Your task to perform on an android device: What's the weather today? Image 0: 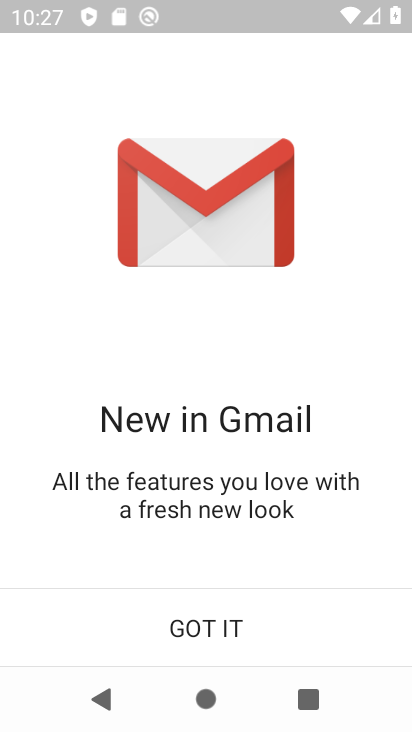
Step 0: press back button
Your task to perform on an android device: What's the weather today? Image 1: 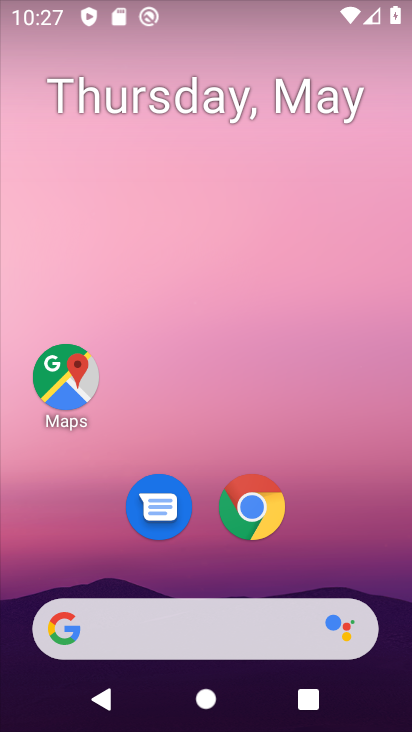
Step 1: drag from (323, 535) to (260, 40)
Your task to perform on an android device: What's the weather today? Image 2: 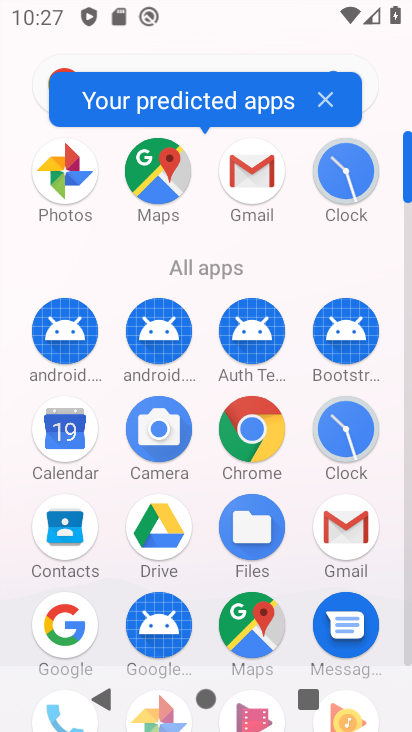
Step 2: drag from (1, 598) to (18, 322)
Your task to perform on an android device: What's the weather today? Image 3: 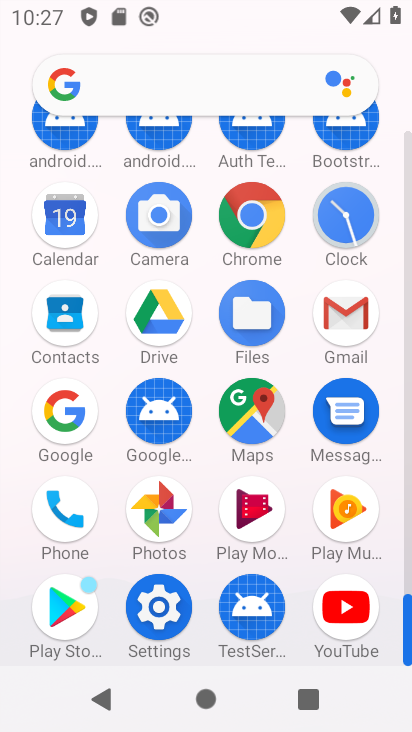
Step 3: drag from (7, 614) to (18, 370)
Your task to perform on an android device: What's the weather today? Image 4: 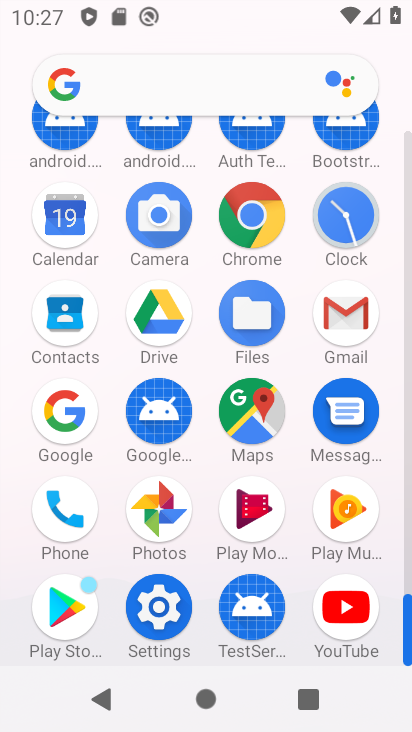
Step 4: click (249, 214)
Your task to perform on an android device: What's the weather today? Image 5: 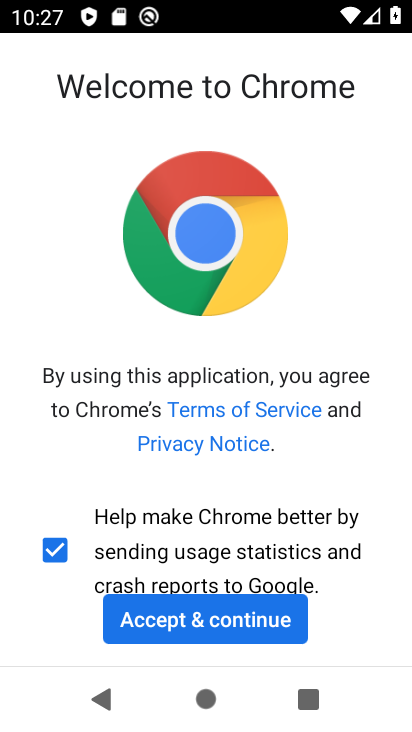
Step 5: click (173, 611)
Your task to perform on an android device: What's the weather today? Image 6: 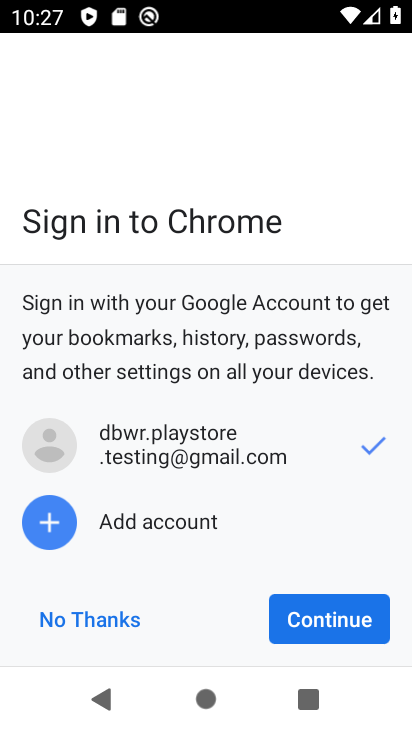
Step 6: click (283, 602)
Your task to perform on an android device: What's the weather today? Image 7: 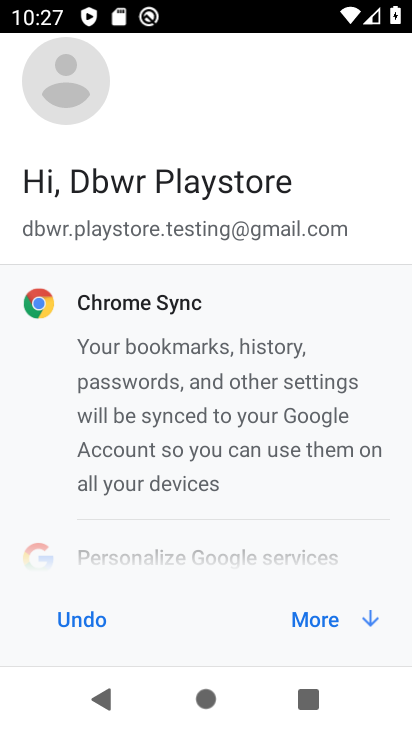
Step 7: click (315, 614)
Your task to perform on an android device: What's the weather today? Image 8: 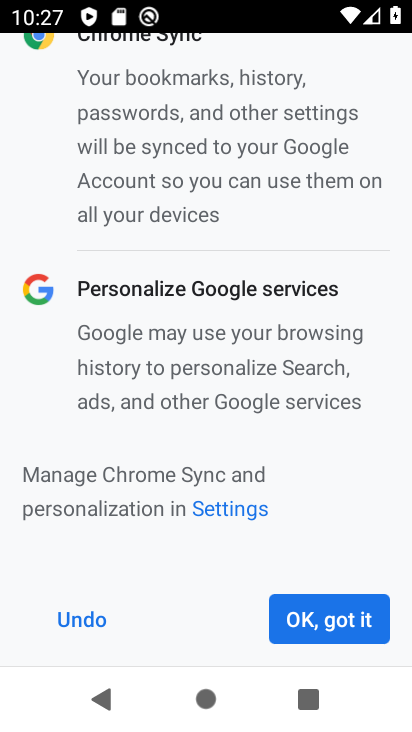
Step 8: click (315, 614)
Your task to perform on an android device: What's the weather today? Image 9: 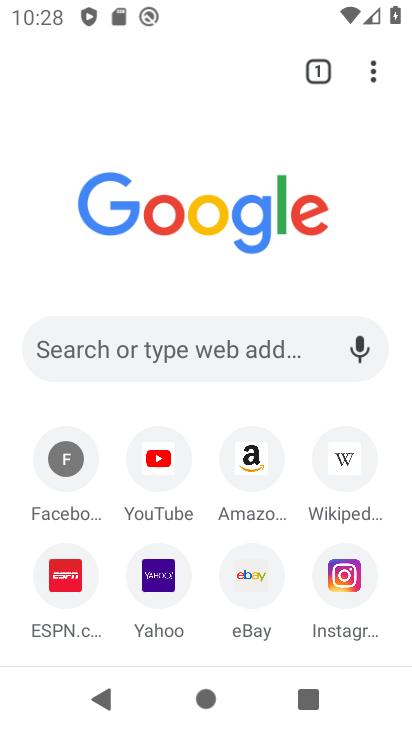
Step 9: click (168, 328)
Your task to perform on an android device: What's the weather today? Image 10: 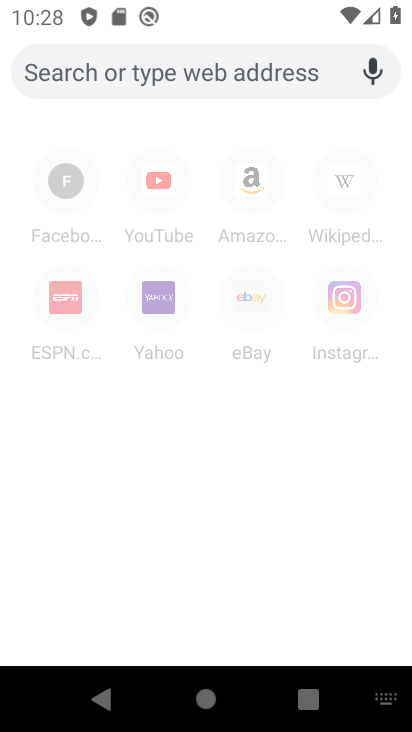
Step 10: type "What's the weather today?"
Your task to perform on an android device: What's the weather today? Image 11: 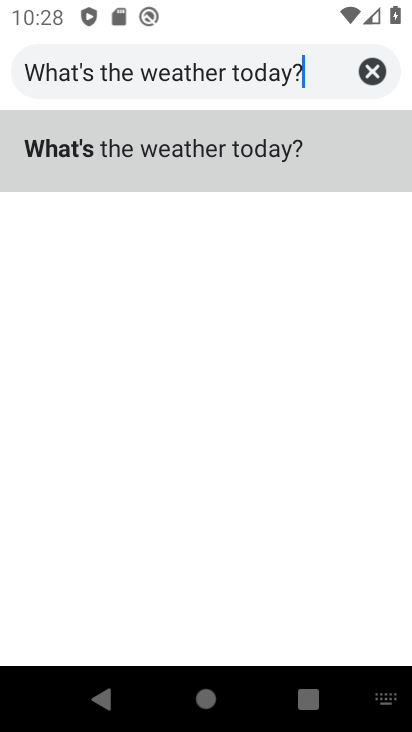
Step 11: type ""
Your task to perform on an android device: What's the weather today? Image 12: 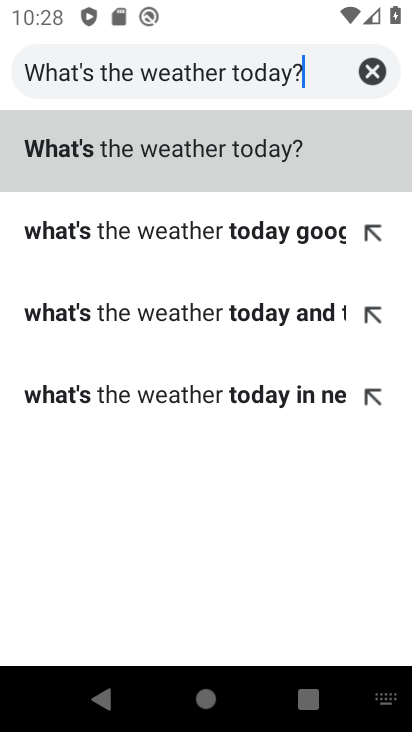
Step 12: click (180, 143)
Your task to perform on an android device: What's the weather today? Image 13: 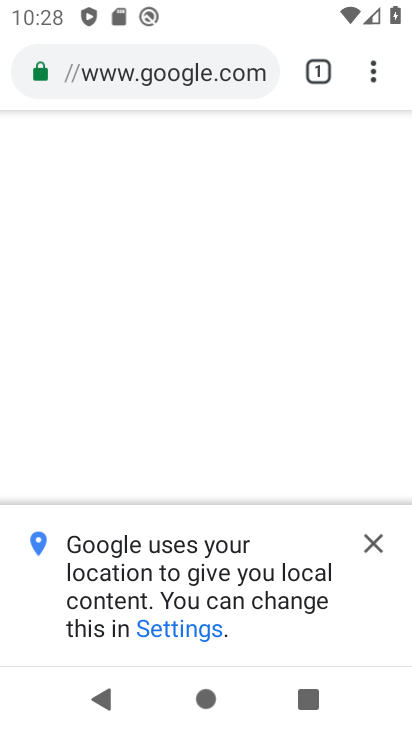
Step 13: click (373, 536)
Your task to perform on an android device: What's the weather today? Image 14: 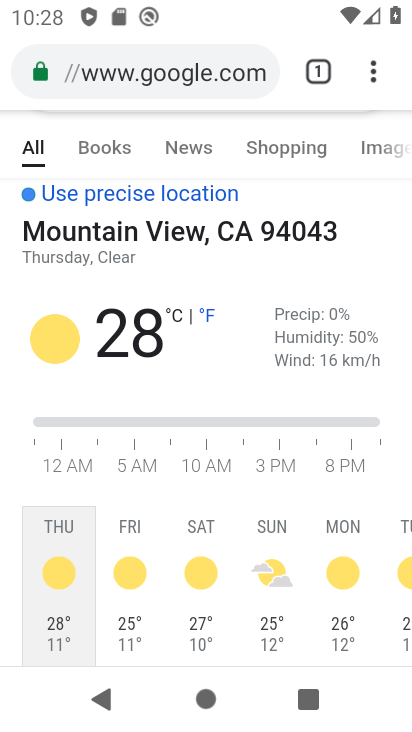
Step 14: task complete